Your task to perform on an android device: Open calendar and show me the second week of next month Image 0: 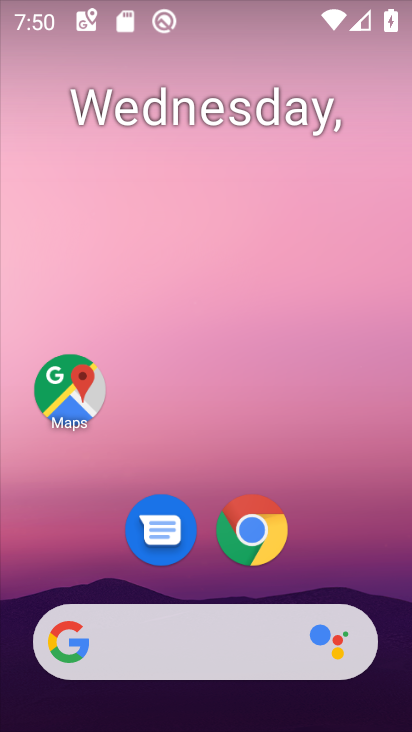
Step 0: drag from (401, 620) to (320, 60)
Your task to perform on an android device: Open calendar and show me the second week of next month Image 1: 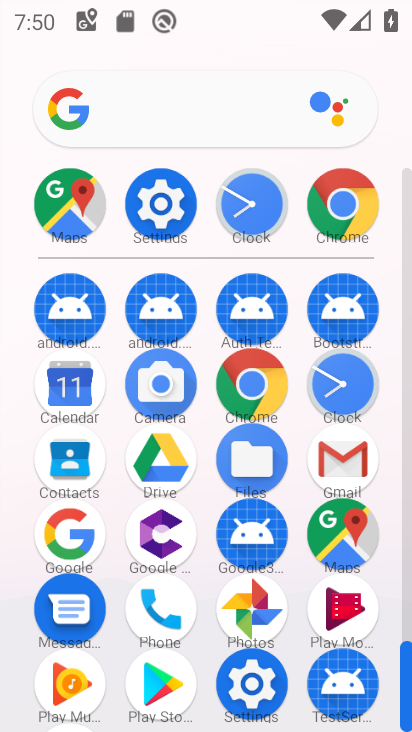
Step 1: click (65, 393)
Your task to perform on an android device: Open calendar and show me the second week of next month Image 2: 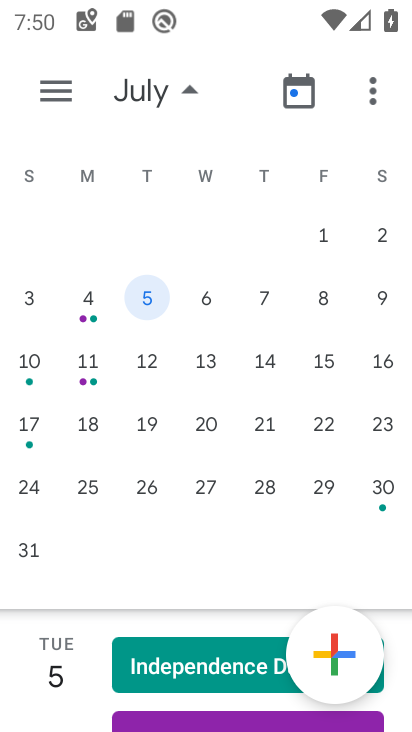
Step 2: drag from (344, 381) to (29, 377)
Your task to perform on an android device: Open calendar and show me the second week of next month Image 3: 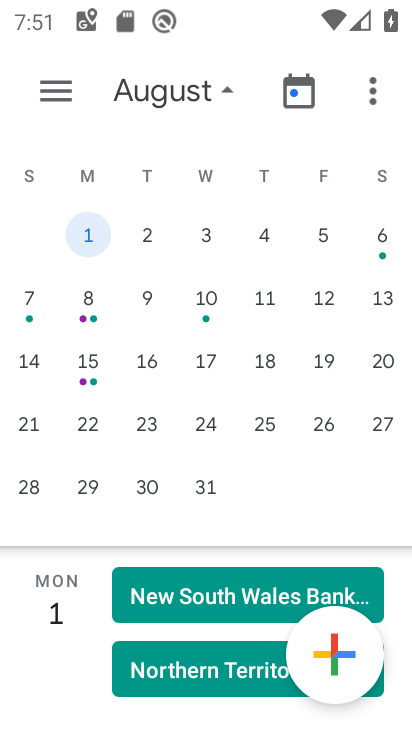
Step 3: click (78, 361)
Your task to perform on an android device: Open calendar and show me the second week of next month Image 4: 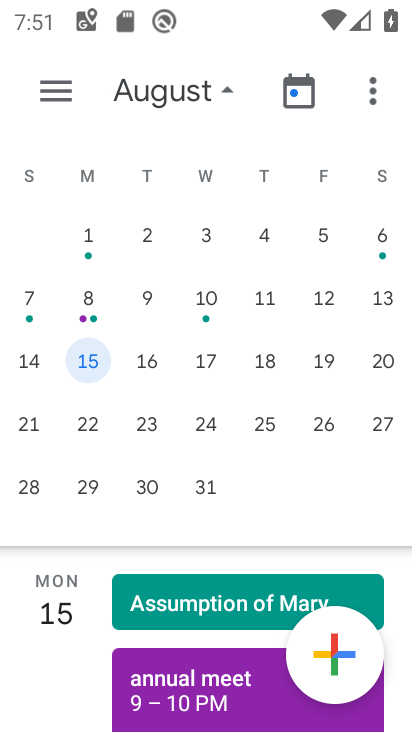
Step 4: task complete